Your task to perform on an android device: What's on my calendar today? Image 0: 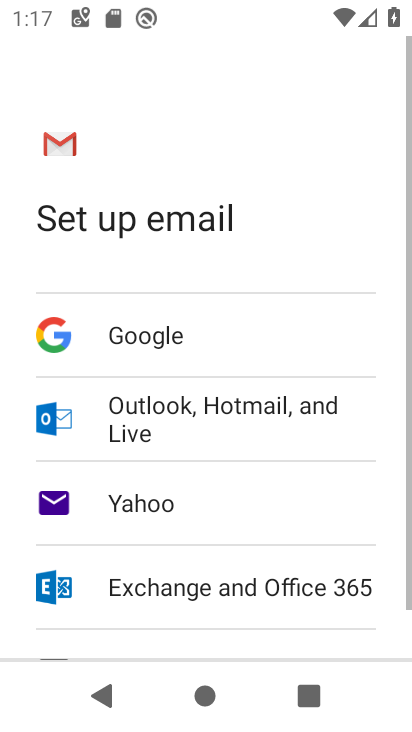
Step 0: press home button
Your task to perform on an android device: What's on my calendar today? Image 1: 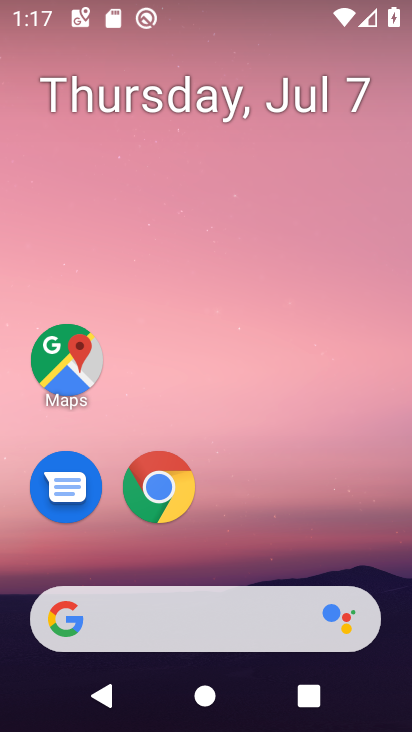
Step 1: drag from (368, 553) to (366, 92)
Your task to perform on an android device: What's on my calendar today? Image 2: 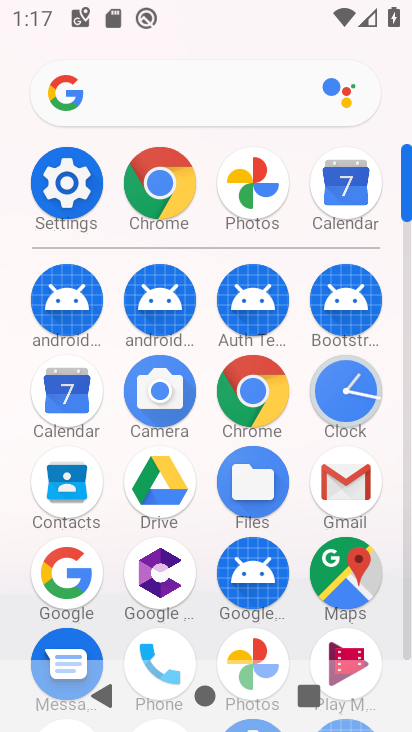
Step 2: click (66, 404)
Your task to perform on an android device: What's on my calendar today? Image 3: 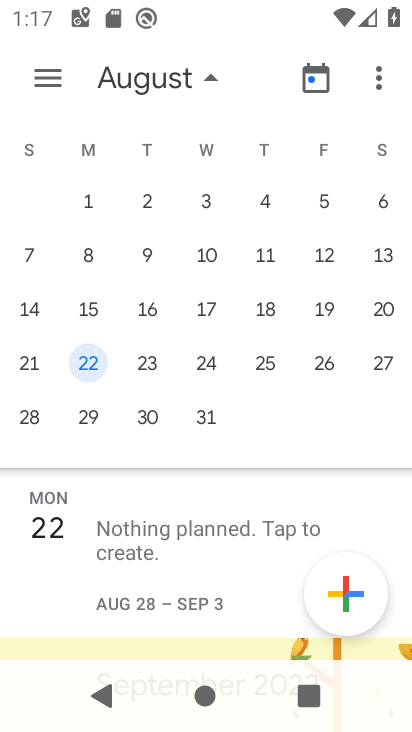
Step 3: task complete